Your task to perform on an android device: Add "sony triple a" to the cart on ebay.com, then select checkout. Image 0: 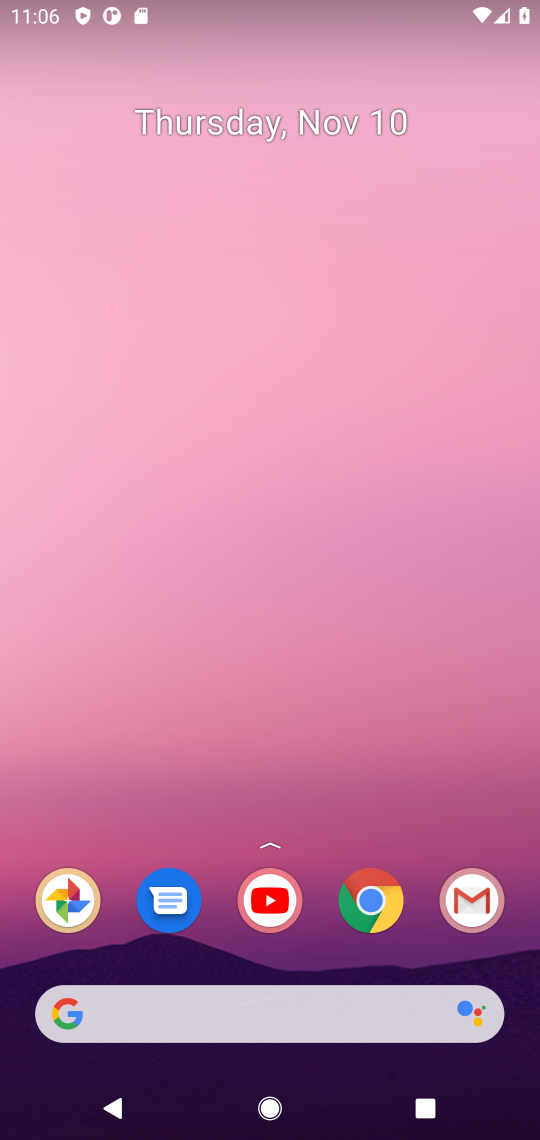
Step 0: click (373, 899)
Your task to perform on an android device: Add "sony triple a" to the cart on ebay.com, then select checkout. Image 1: 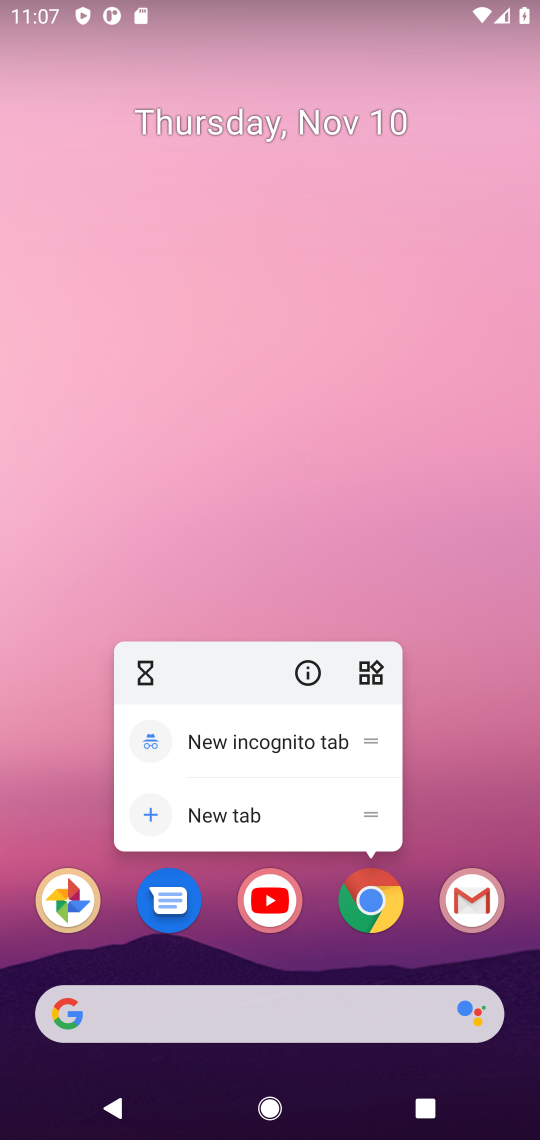
Step 1: click (373, 901)
Your task to perform on an android device: Add "sony triple a" to the cart on ebay.com, then select checkout. Image 2: 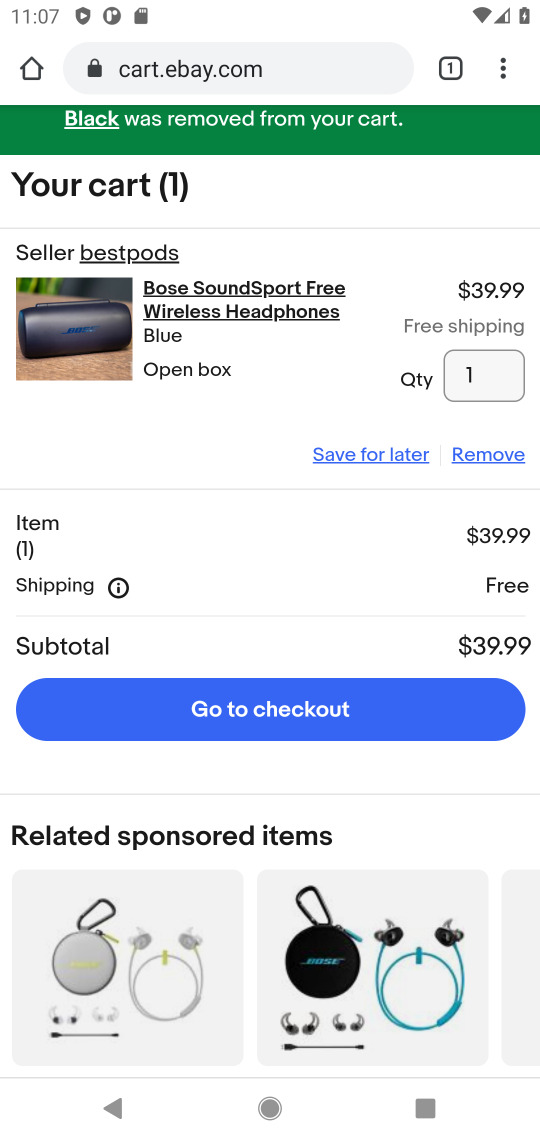
Step 2: drag from (329, 346) to (260, 787)
Your task to perform on an android device: Add "sony triple a" to the cart on ebay.com, then select checkout. Image 3: 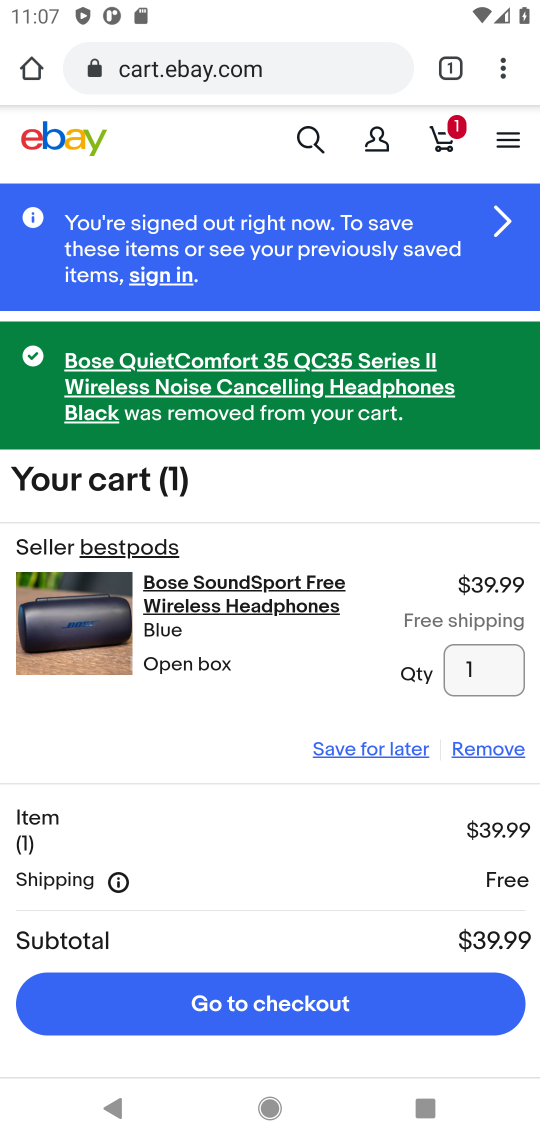
Step 3: click (314, 136)
Your task to perform on an android device: Add "sony triple a" to the cart on ebay.com, then select checkout. Image 4: 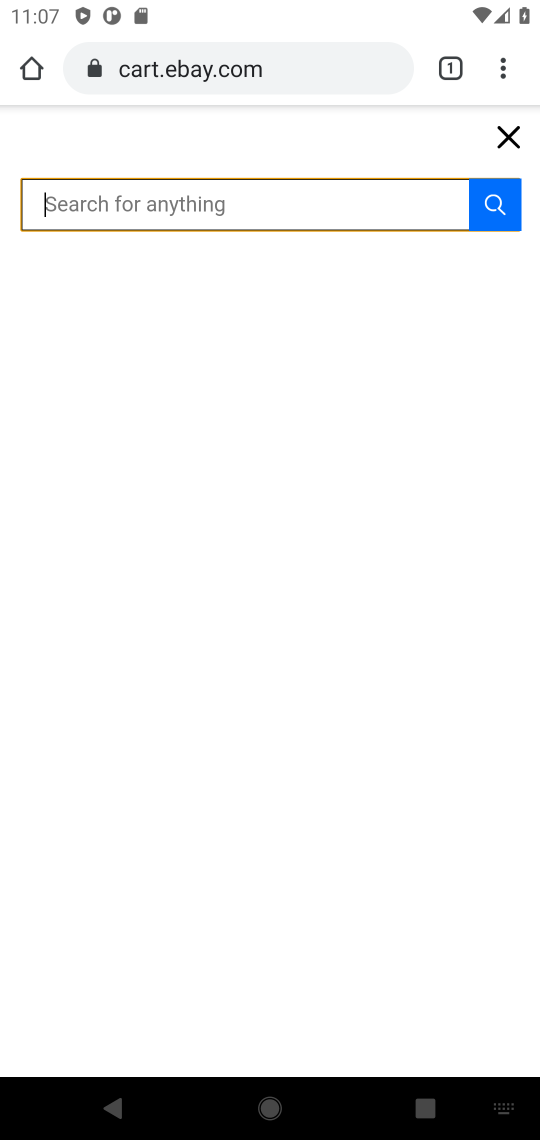
Step 4: type "sony triple a"
Your task to perform on an android device: Add "sony triple a" to the cart on ebay.com, then select checkout. Image 5: 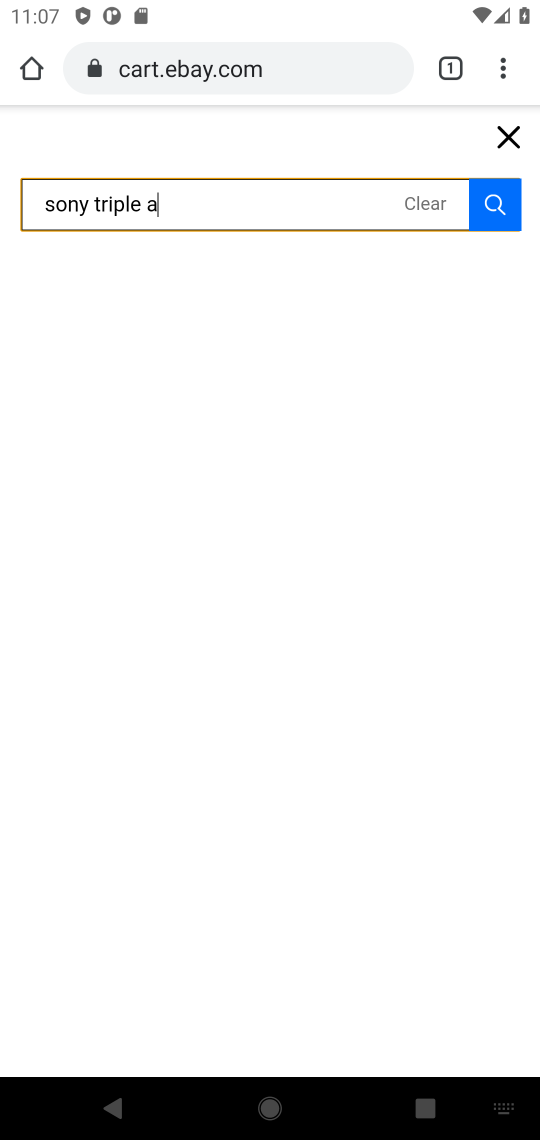
Step 5: press enter
Your task to perform on an android device: Add "sony triple a" to the cart on ebay.com, then select checkout. Image 6: 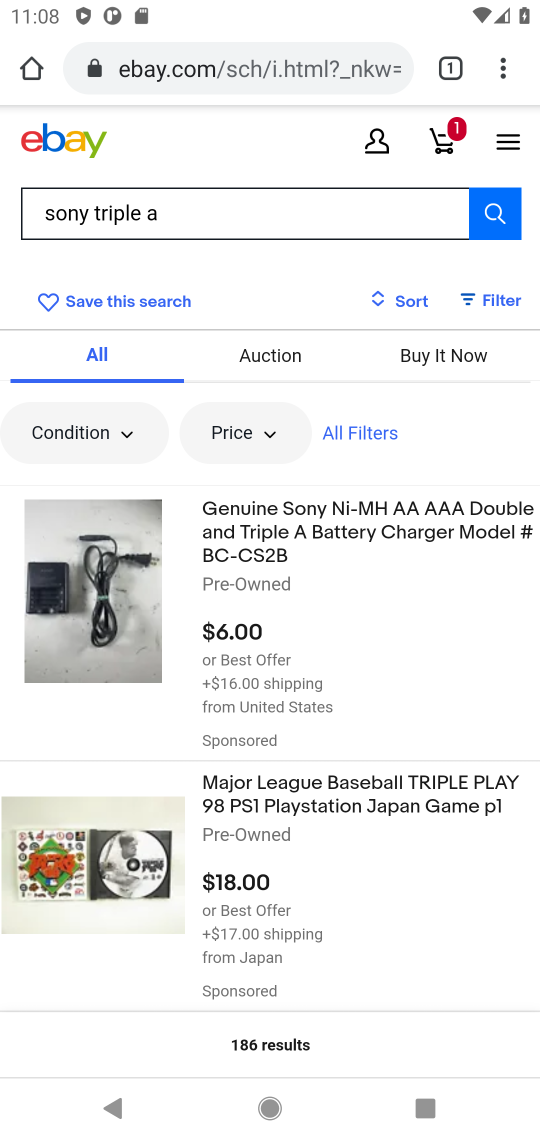
Step 6: task complete